Your task to perform on an android device: toggle notifications settings in the gmail app Image 0: 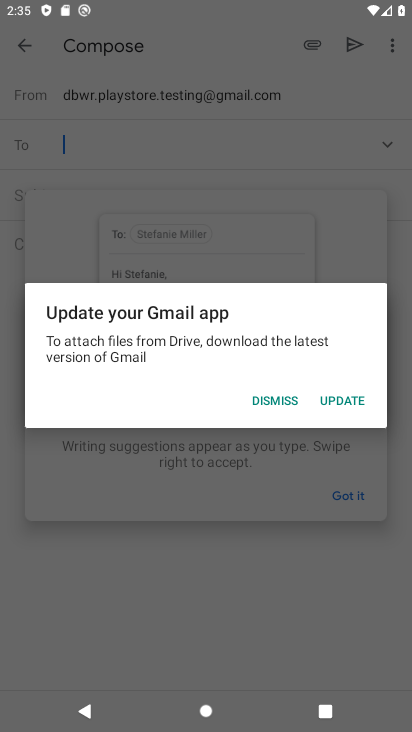
Step 0: click (289, 393)
Your task to perform on an android device: toggle notifications settings in the gmail app Image 1: 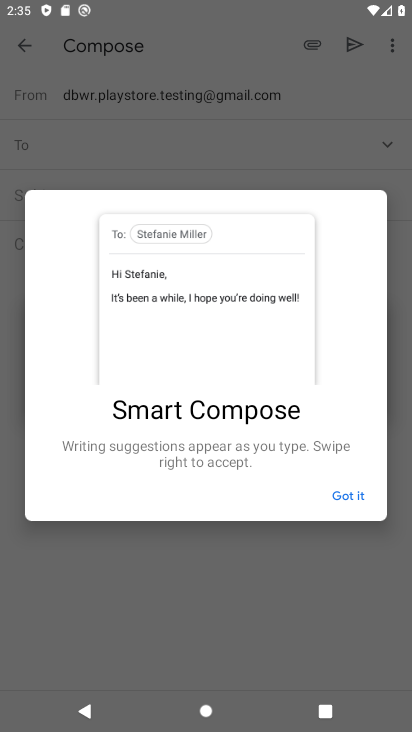
Step 1: press home button
Your task to perform on an android device: toggle notifications settings in the gmail app Image 2: 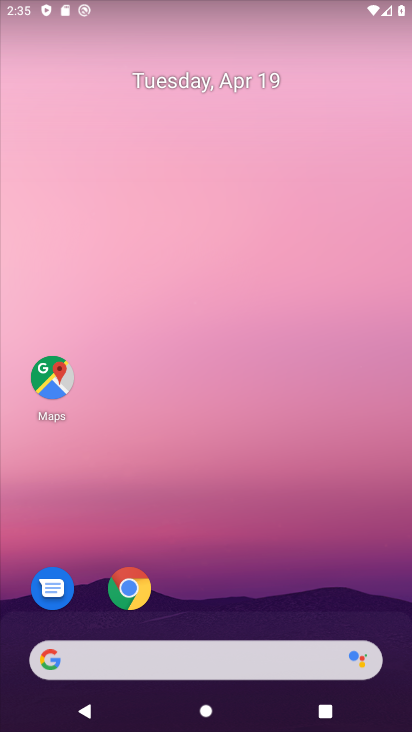
Step 2: click (307, 174)
Your task to perform on an android device: toggle notifications settings in the gmail app Image 3: 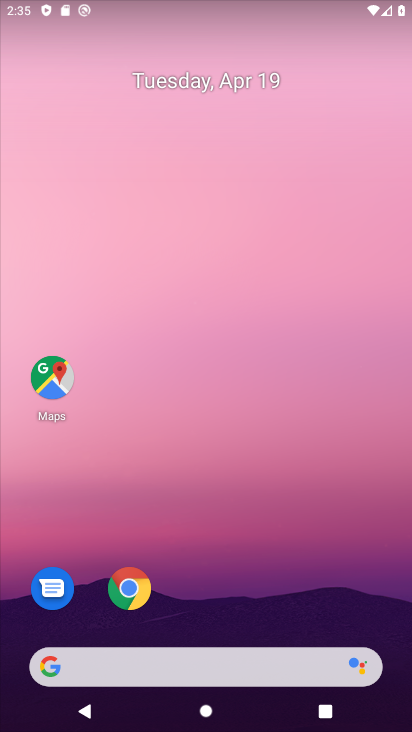
Step 3: drag from (295, 680) to (251, 160)
Your task to perform on an android device: toggle notifications settings in the gmail app Image 4: 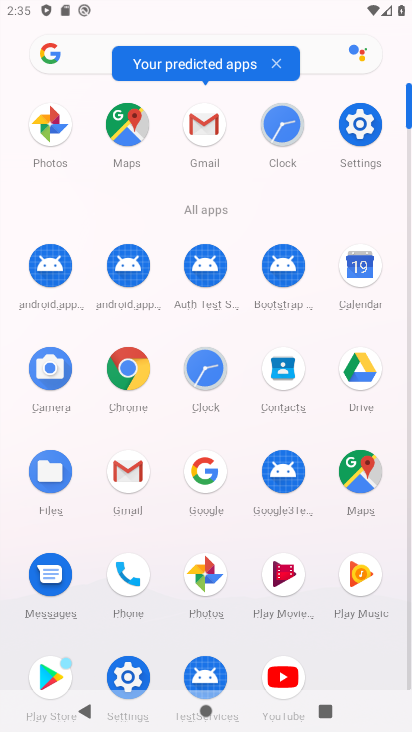
Step 4: click (142, 466)
Your task to perform on an android device: toggle notifications settings in the gmail app Image 5: 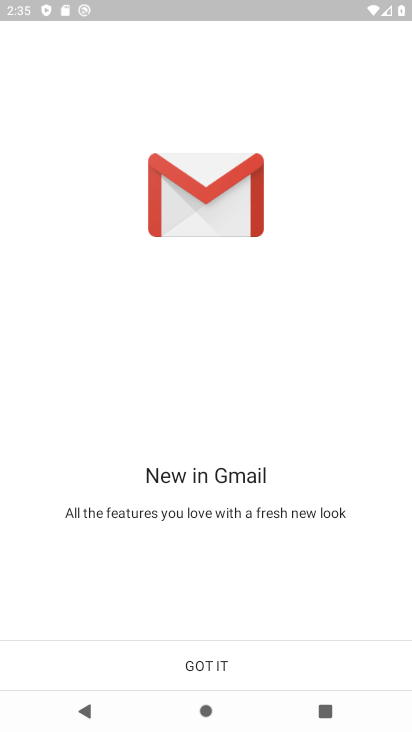
Step 5: click (188, 662)
Your task to perform on an android device: toggle notifications settings in the gmail app Image 6: 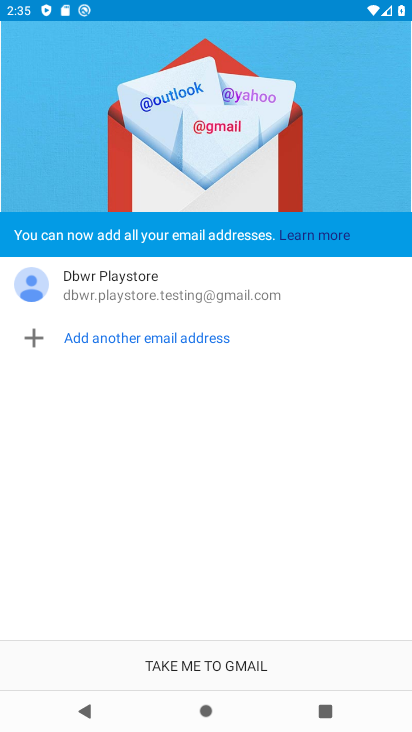
Step 6: click (207, 661)
Your task to perform on an android device: toggle notifications settings in the gmail app Image 7: 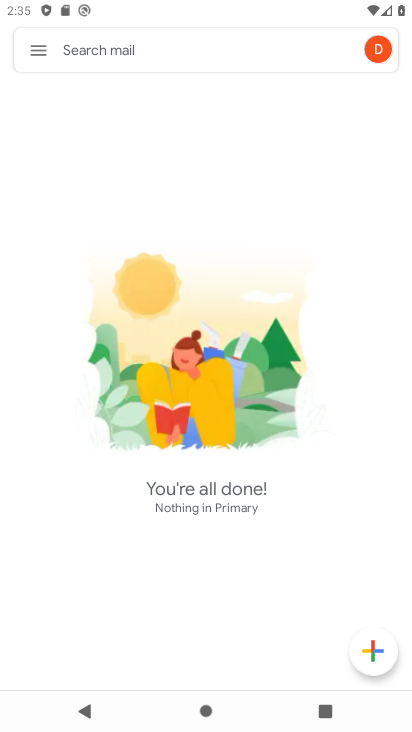
Step 7: click (33, 43)
Your task to perform on an android device: toggle notifications settings in the gmail app Image 8: 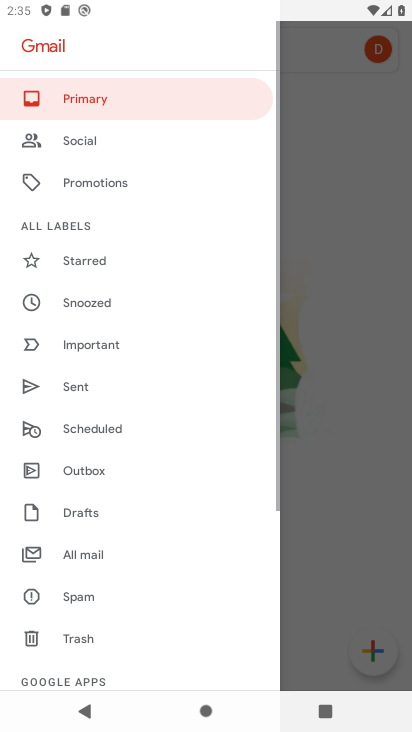
Step 8: drag from (142, 621) to (193, 454)
Your task to perform on an android device: toggle notifications settings in the gmail app Image 9: 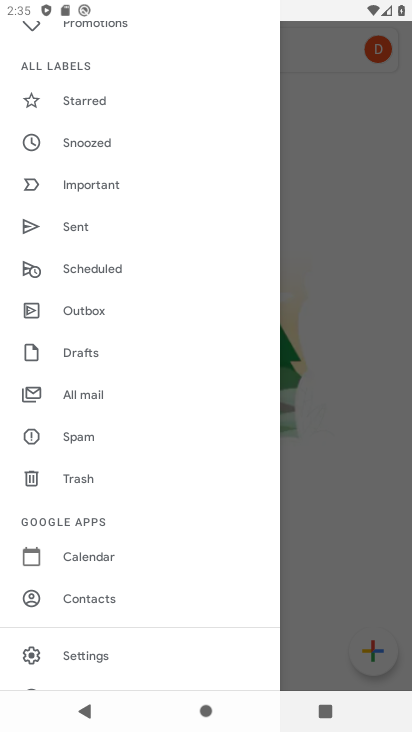
Step 9: click (101, 652)
Your task to perform on an android device: toggle notifications settings in the gmail app Image 10: 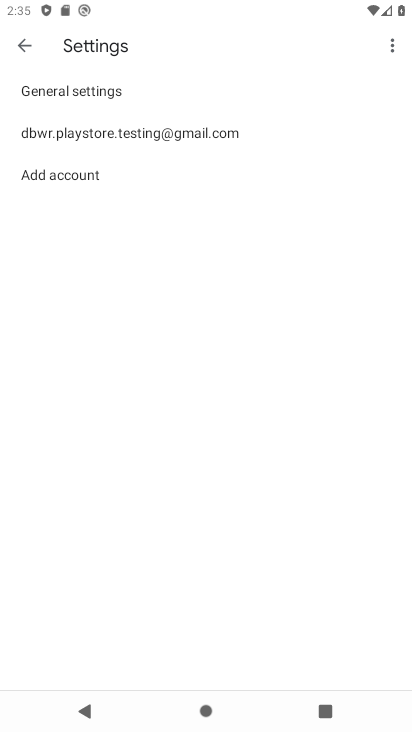
Step 10: click (159, 131)
Your task to perform on an android device: toggle notifications settings in the gmail app Image 11: 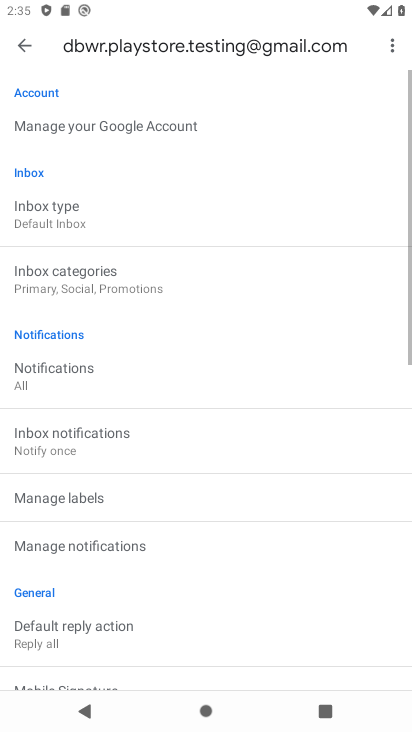
Step 11: drag from (93, 438) to (120, 392)
Your task to perform on an android device: toggle notifications settings in the gmail app Image 12: 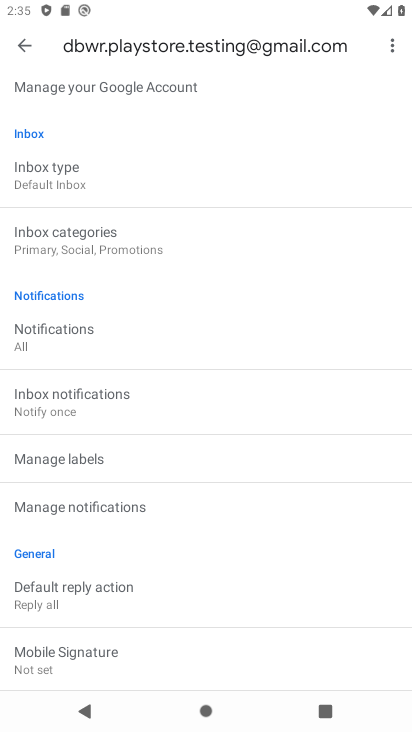
Step 12: click (29, 321)
Your task to perform on an android device: toggle notifications settings in the gmail app Image 13: 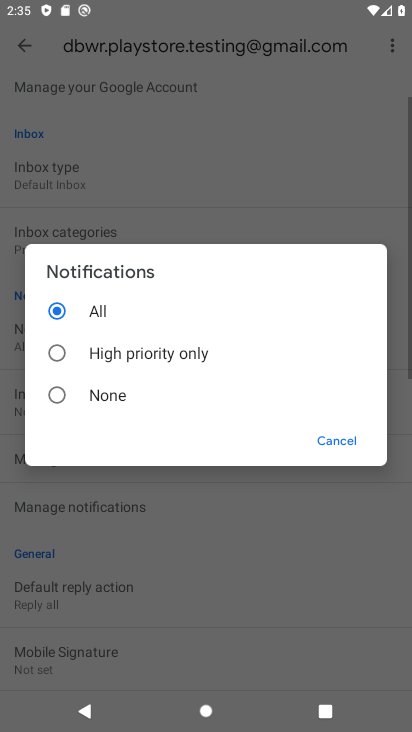
Step 13: task complete